Your task to perform on an android device: Go to calendar. Show me events next week Image 0: 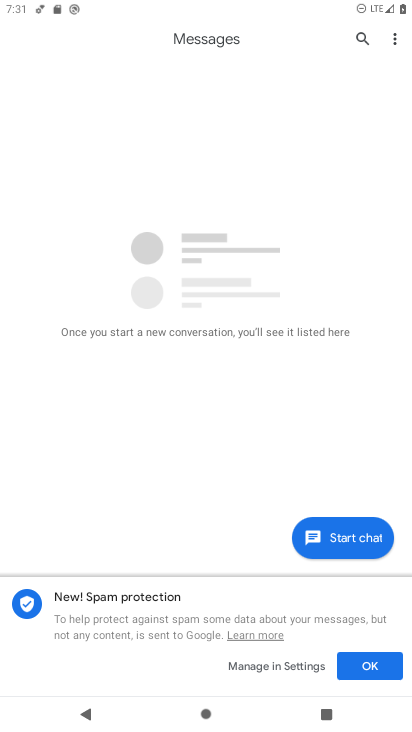
Step 0: press home button
Your task to perform on an android device: Go to calendar. Show me events next week Image 1: 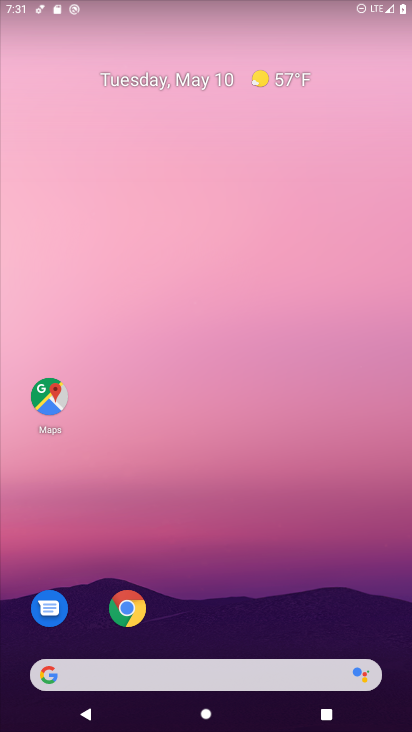
Step 1: drag from (284, 604) to (232, 19)
Your task to perform on an android device: Go to calendar. Show me events next week Image 2: 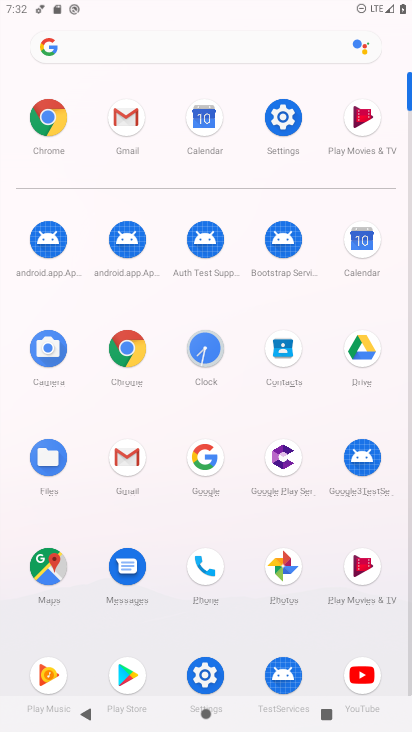
Step 2: click (363, 259)
Your task to perform on an android device: Go to calendar. Show me events next week Image 3: 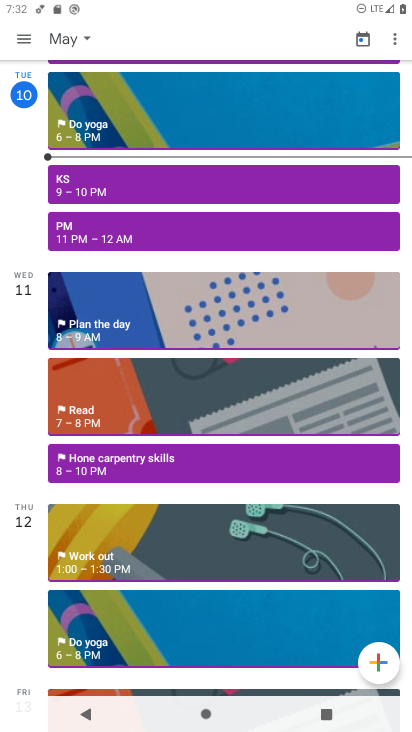
Step 3: click (21, 36)
Your task to perform on an android device: Go to calendar. Show me events next week Image 4: 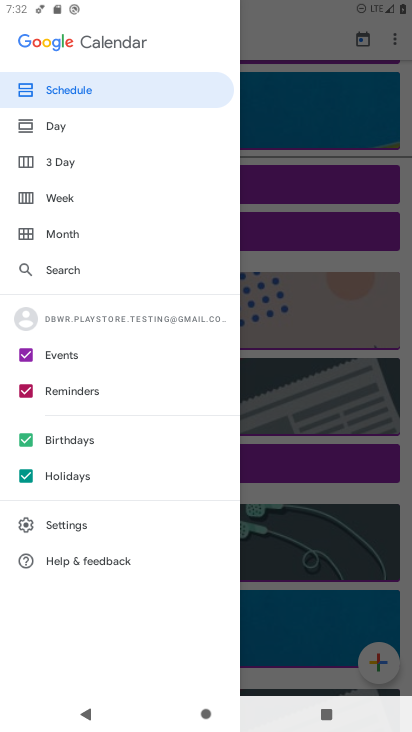
Step 4: click (89, 92)
Your task to perform on an android device: Go to calendar. Show me events next week Image 5: 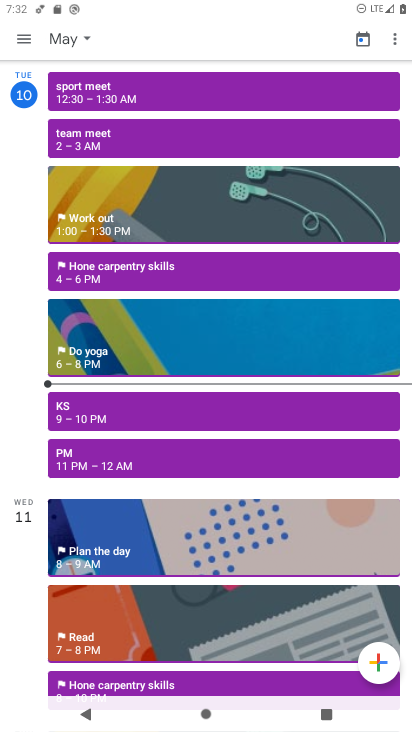
Step 5: task complete